Your task to perform on an android device: Go to sound settings Image 0: 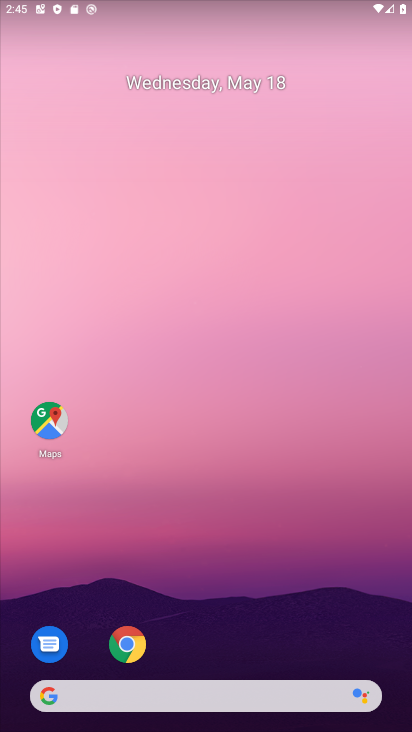
Step 0: drag from (261, 682) to (249, 243)
Your task to perform on an android device: Go to sound settings Image 1: 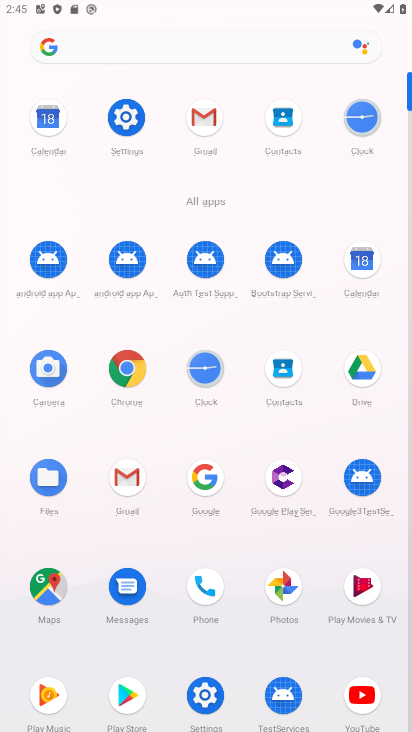
Step 1: click (138, 129)
Your task to perform on an android device: Go to sound settings Image 2: 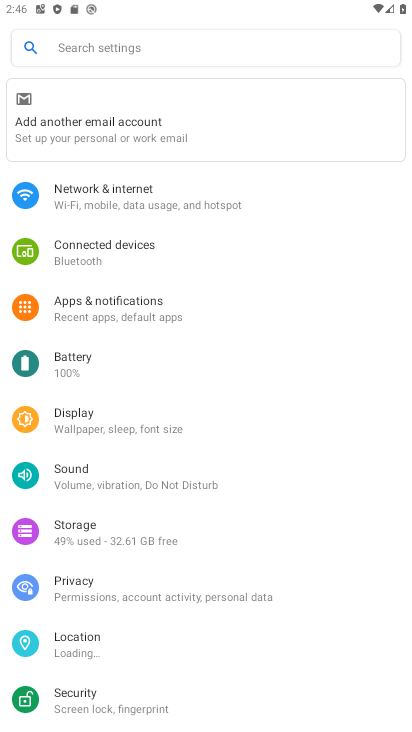
Step 2: click (130, 485)
Your task to perform on an android device: Go to sound settings Image 3: 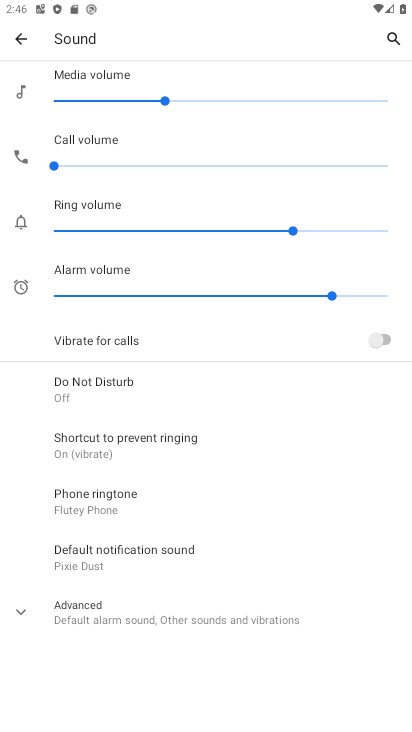
Step 3: task complete